Your task to perform on an android device: turn pop-ups on in chrome Image 0: 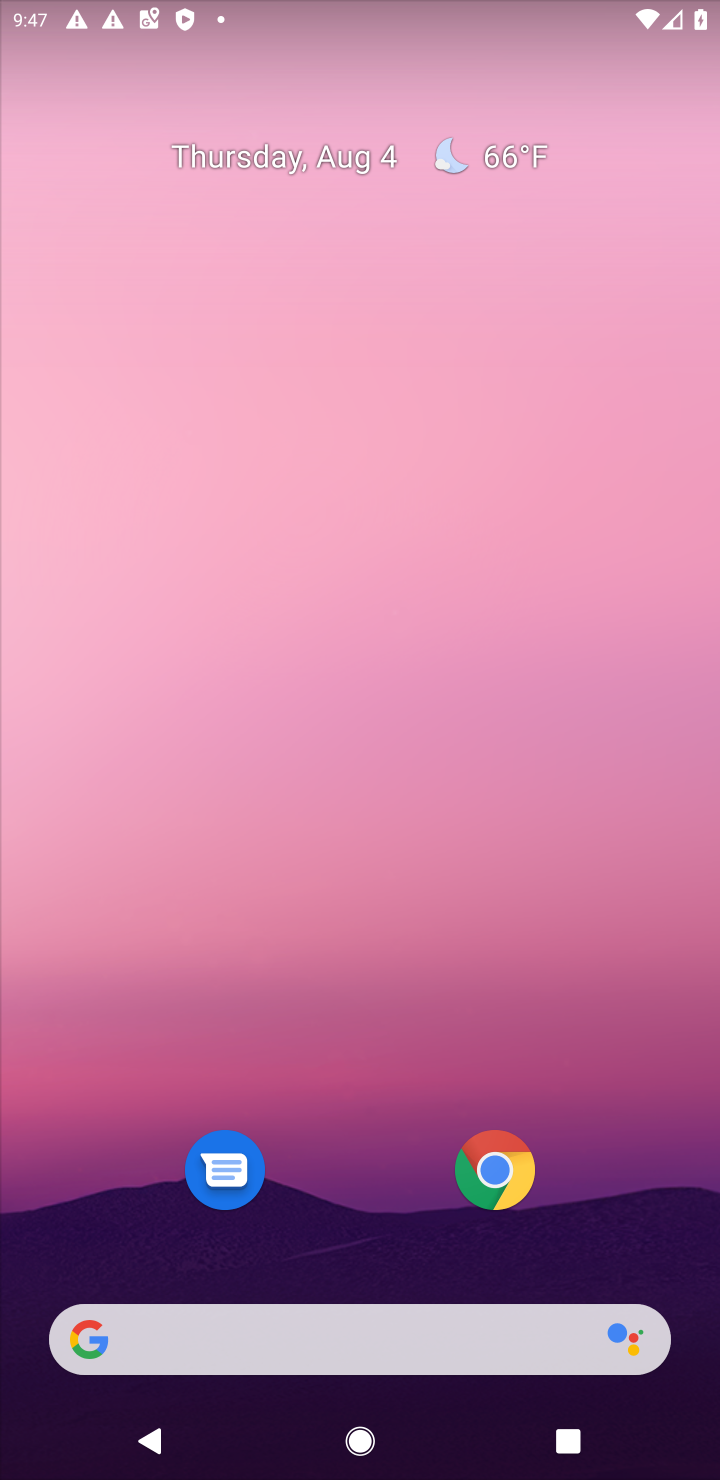
Step 0: drag from (306, 1176) to (367, 13)
Your task to perform on an android device: turn pop-ups on in chrome Image 1: 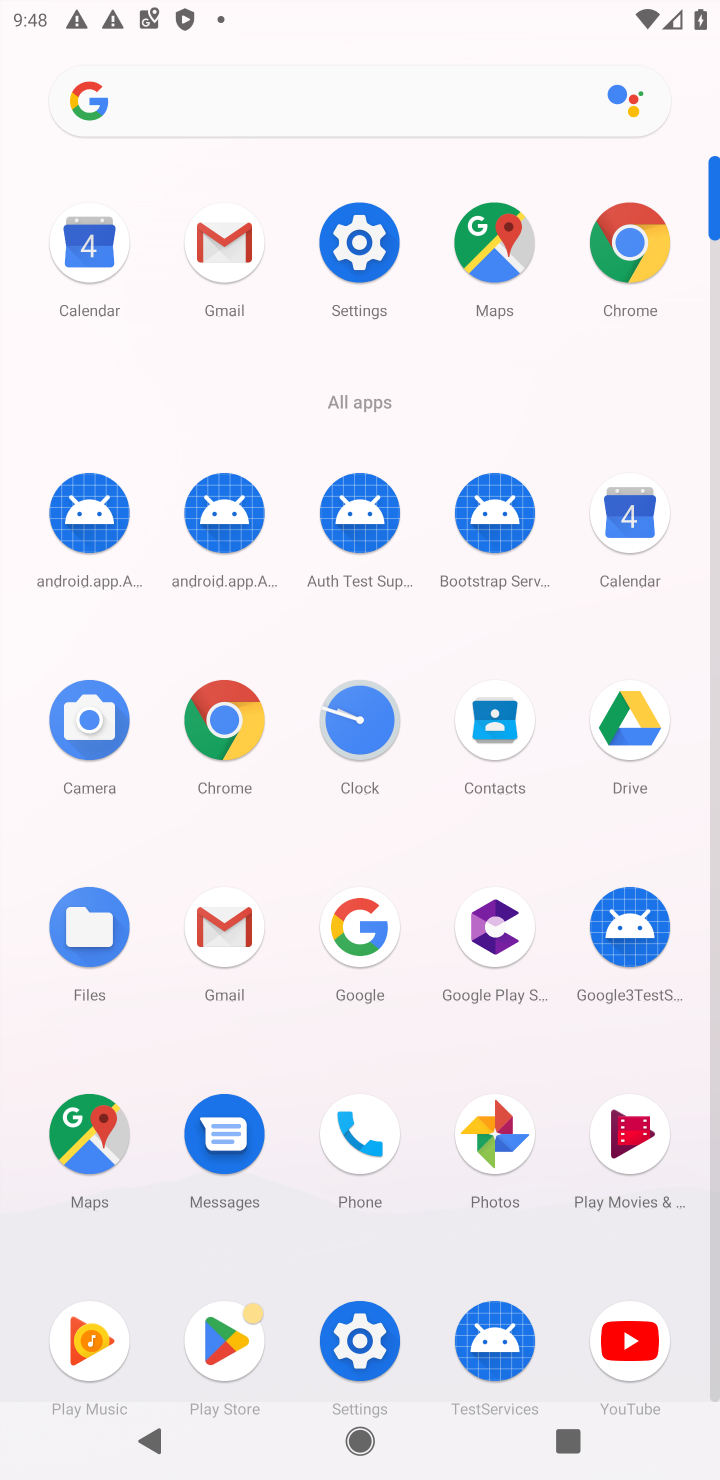
Step 1: click (590, 284)
Your task to perform on an android device: turn pop-ups on in chrome Image 2: 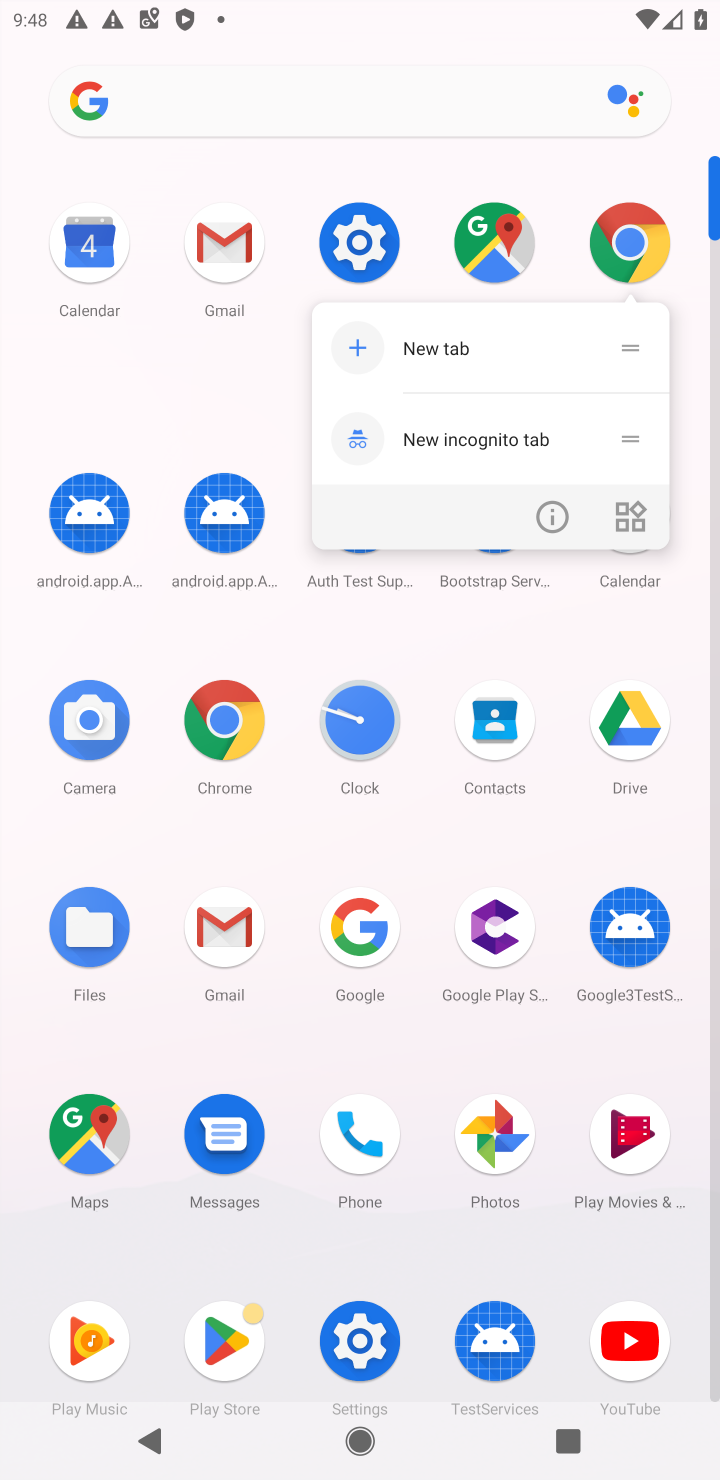
Step 2: click (621, 252)
Your task to perform on an android device: turn pop-ups on in chrome Image 3: 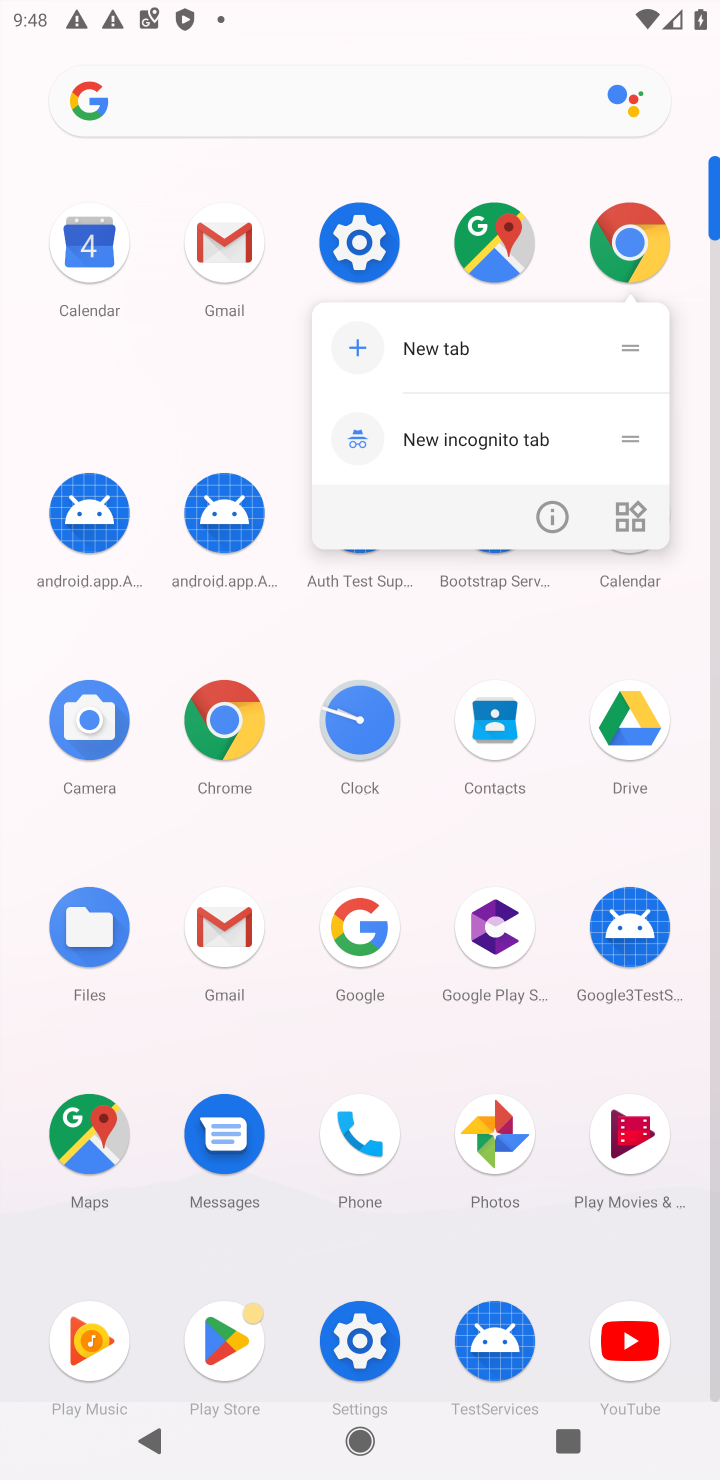
Step 3: click (637, 234)
Your task to perform on an android device: turn pop-ups on in chrome Image 4: 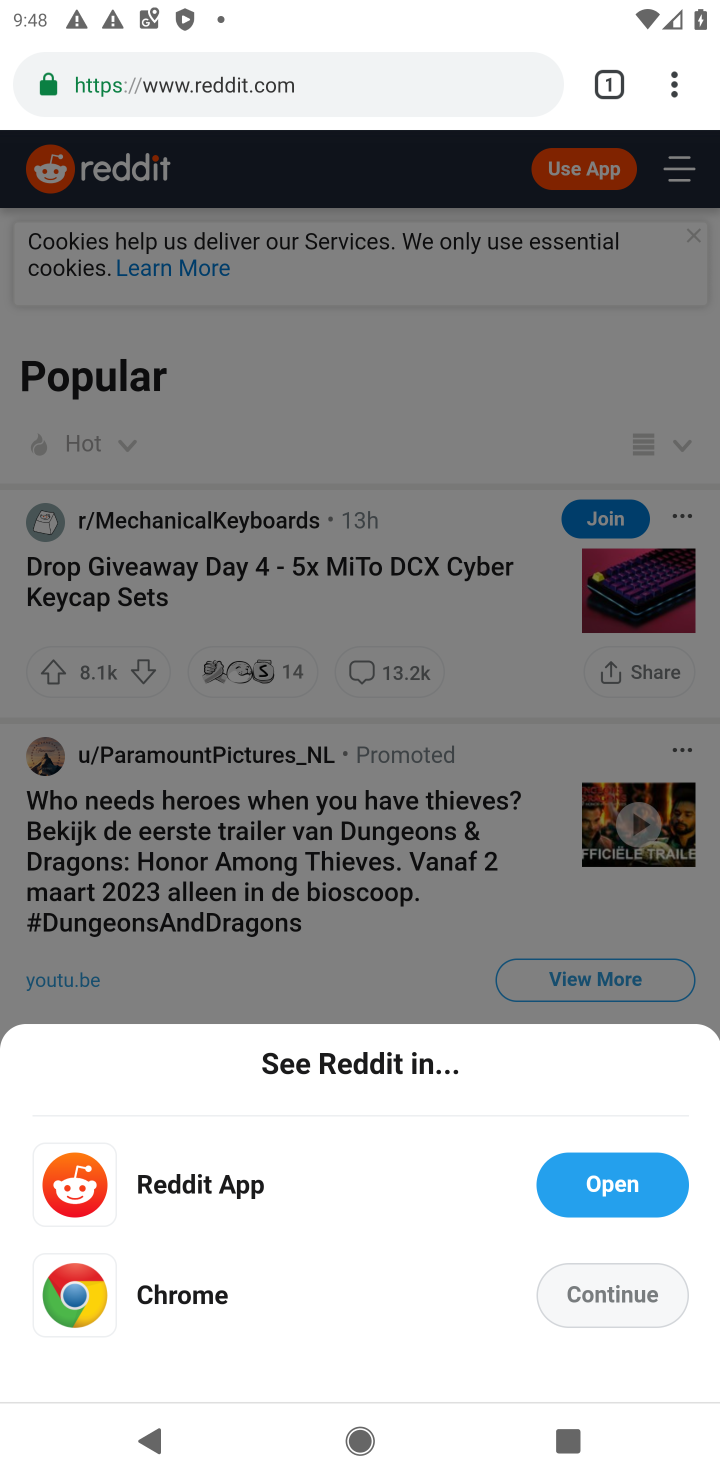
Step 4: drag from (663, 85) to (474, 931)
Your task to perform on an android device: turn pop-ups on in chrome Image 5: 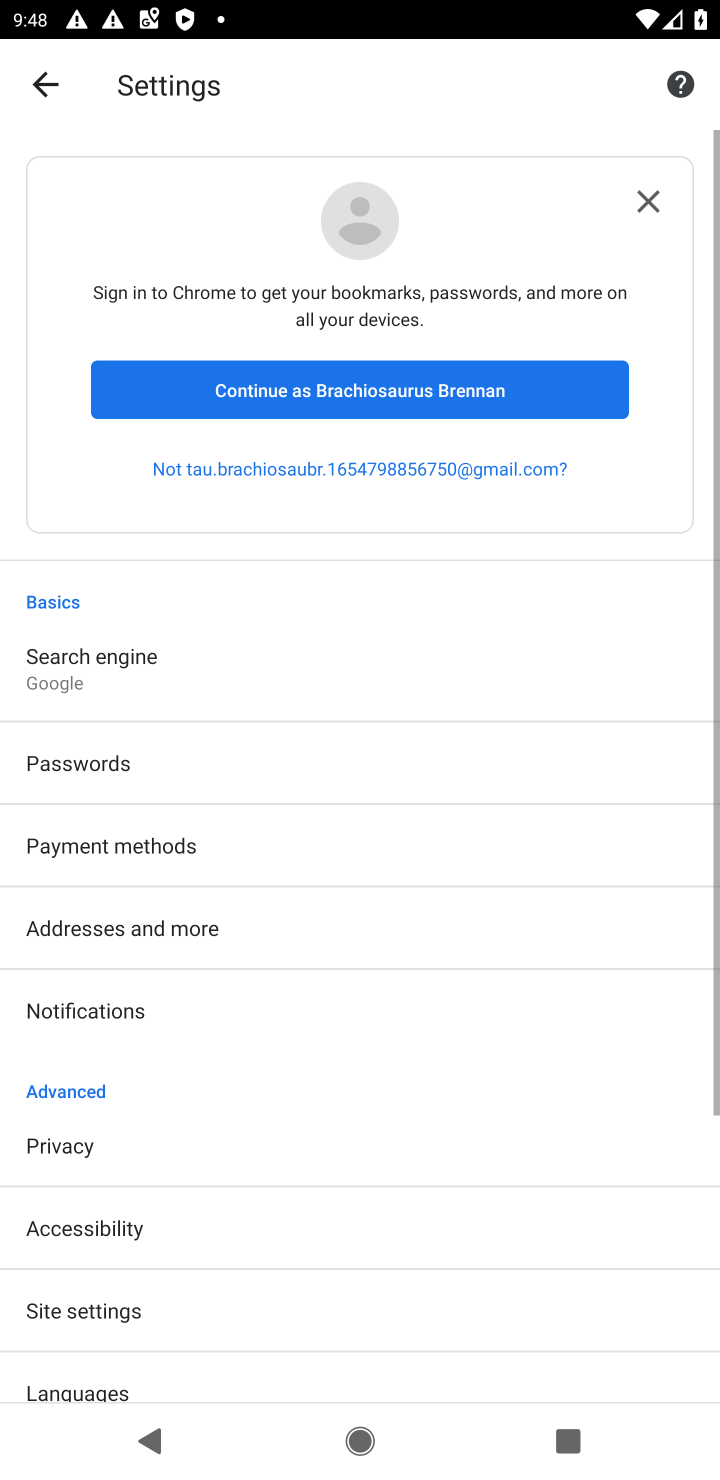
Step 5: drag from (354, 1248) to (245, 354)
Your task to perform on an android device: turn pop-ups on in chrome Image 6: 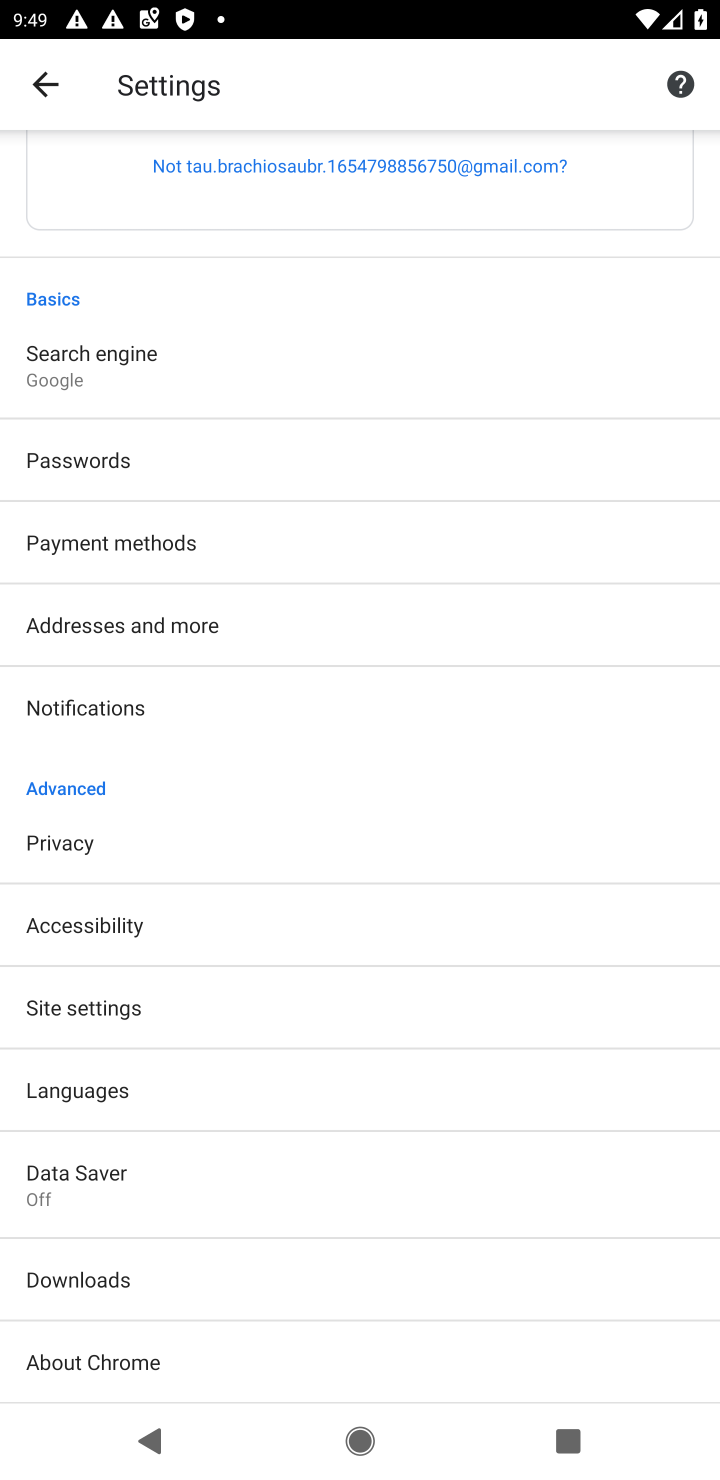
Step 6: click (143, 1004)
Your task to perform on an android device: turn pop-ups on in chrome Image 7: 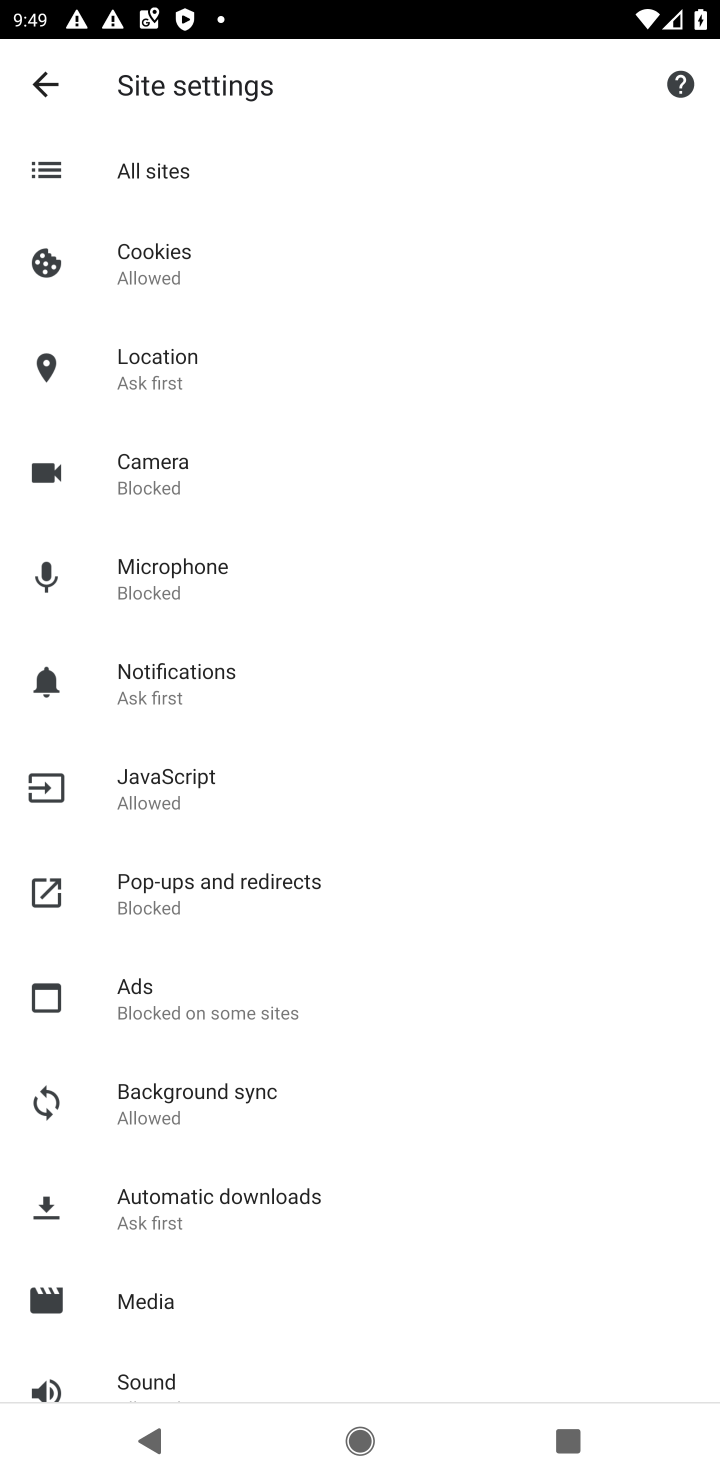
Step 7: click (173, 872)
Your task to perform on an android device: turn pop-ups on in chrome Image 8: 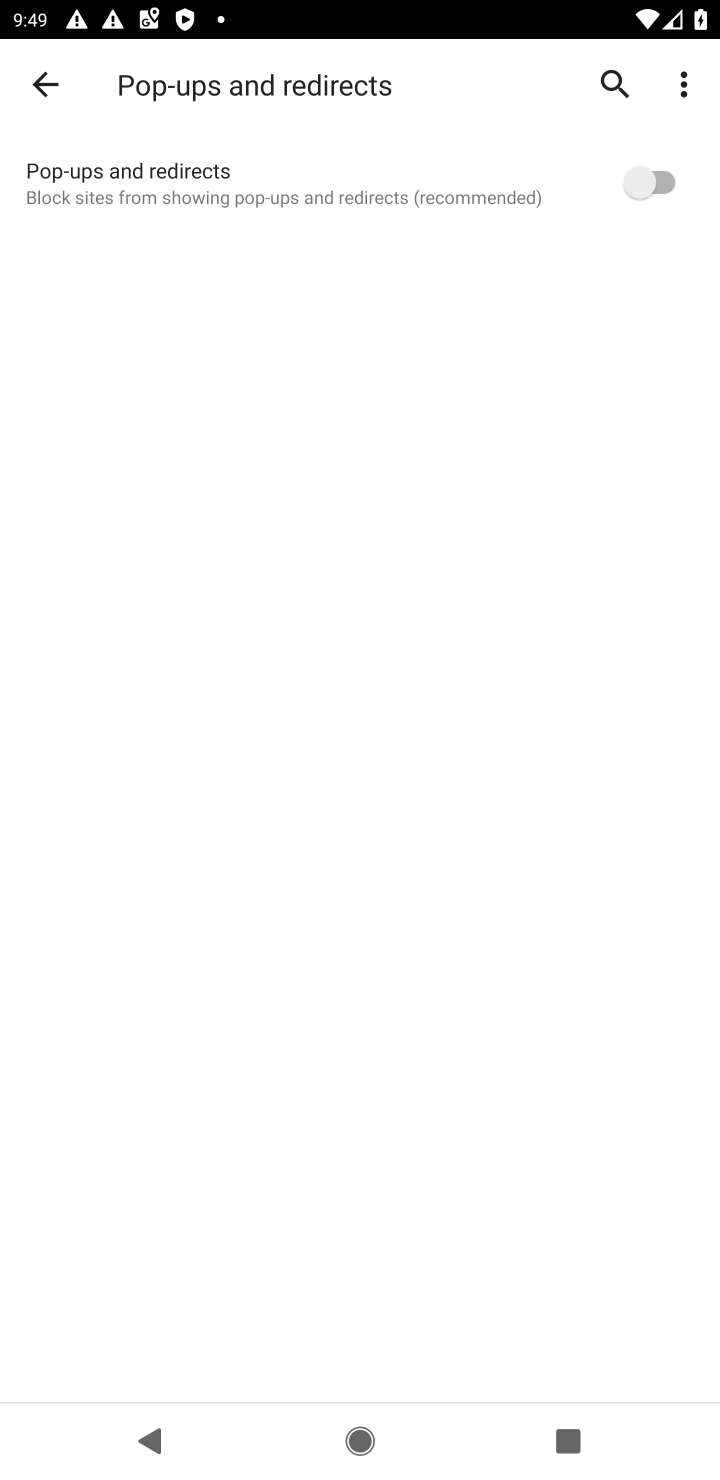
Step 8: click (641, 174)
Your task to perform on an android device: turn pop-ups on in chrome Image 9: 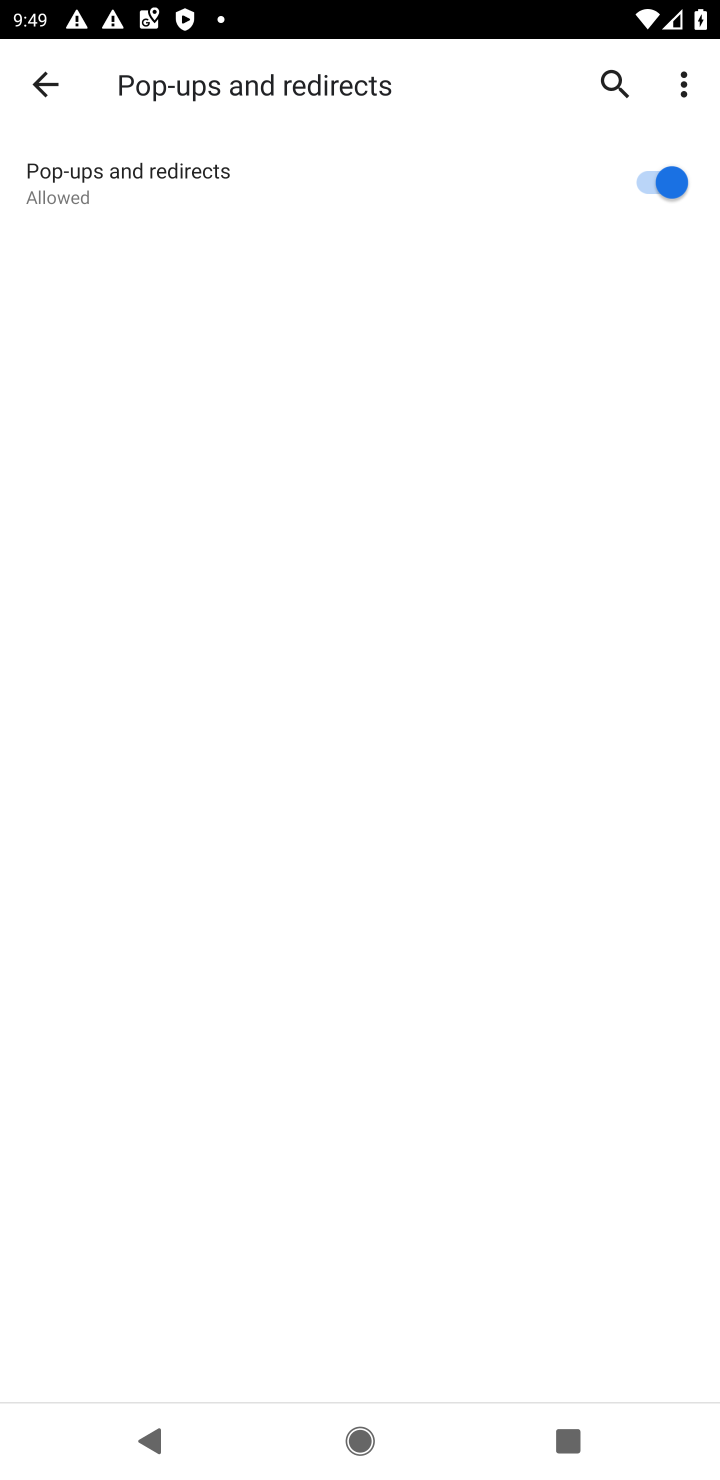
Step 9: task complete